Your task to perform on an android device: delete the emails in spam in the gmail app Image 0: 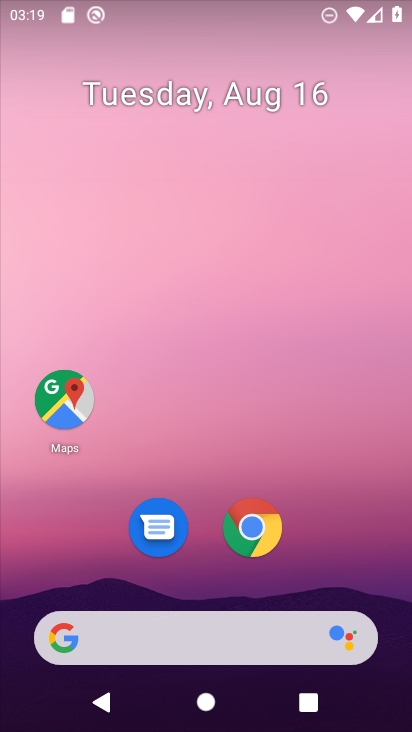
Step 0: press home button
Your task to perform on an android device: delete the emails in spam in the gmail app Image 1: 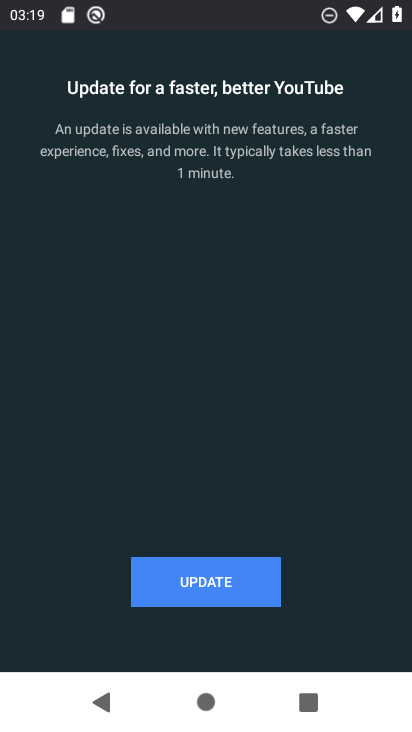
Step 1: drag from (207, 593) to (221, 26)
Your task to perform on an android device: delete the emails in spam in the gmail app Image 2: 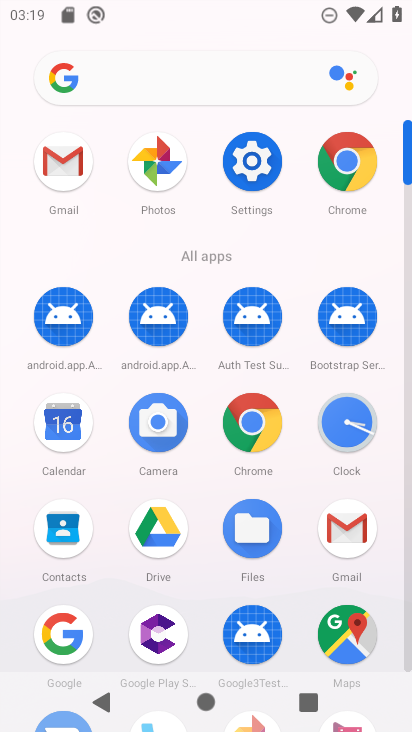
Step 2: click (344, 517)
Your task to perform on an android device: delete the emails in spam in the gmail app Image 3: 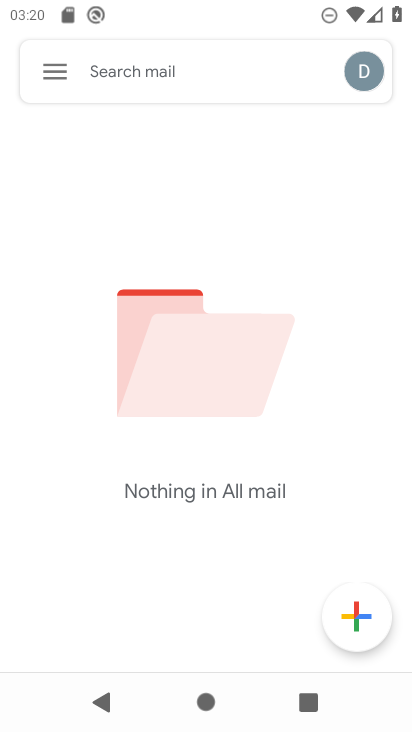
Step 3: click (50, 68)
Your task to perform on an android device: delete the emails in spam in the gmail app Image 4: 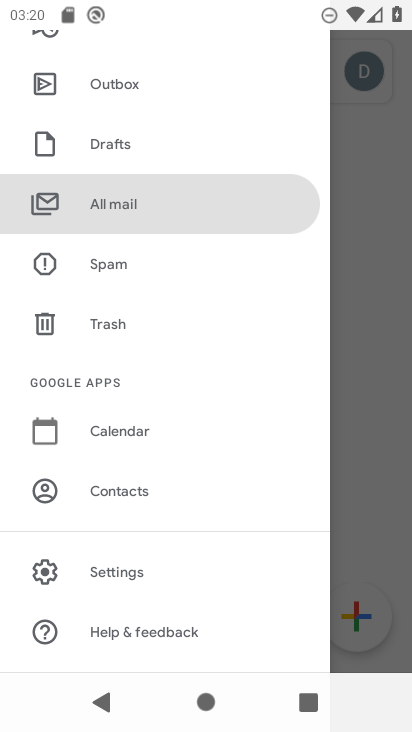
Step 4: click (72, 258)
Your task to perform on an android device: delete the emails in spam in the gmail app Image 5: 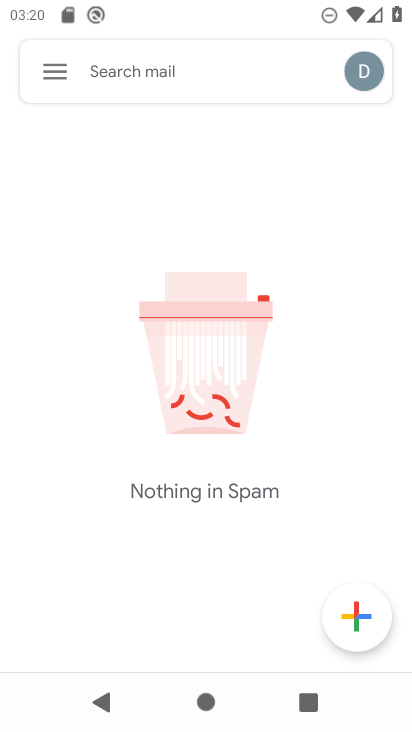
Step 5: task complete